Your task to perform on an android device: Go to privacy settings Image 0: 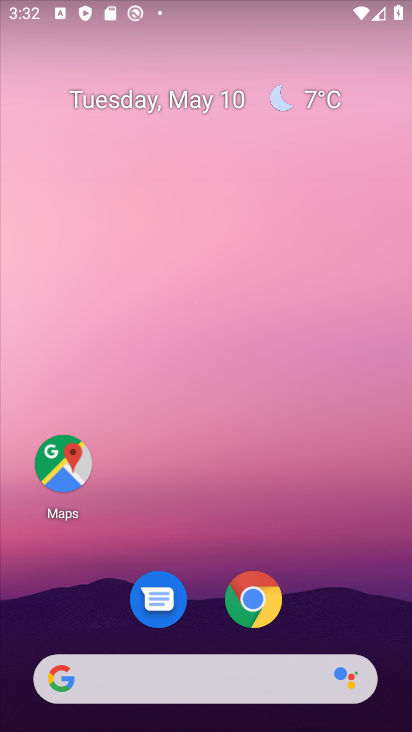
Step 0: drag from (233, 688) to (303, 206)
Your task to perform on an android device: Go to privacy settings Image 1: 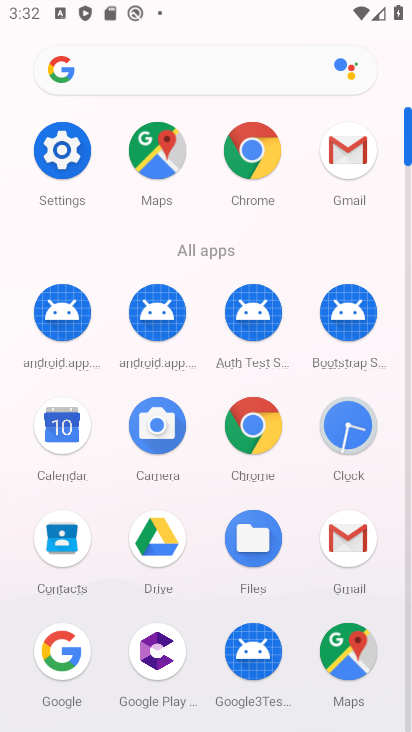
Step 1: click (58, 166)
Your task to perform on an android device: Go to privacy settings Image 2: 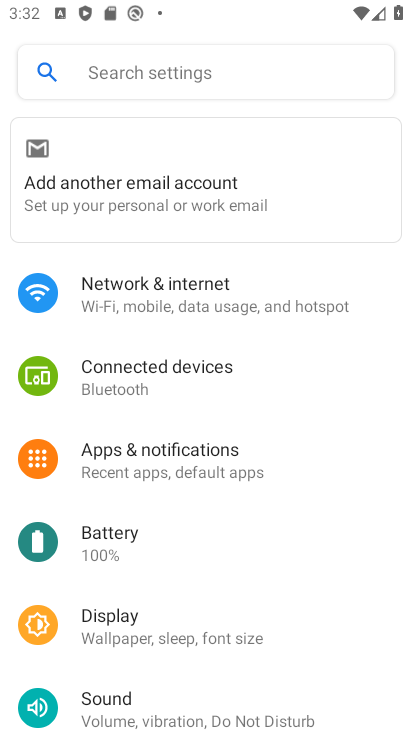
Step 2: drag from (249, 589) to (304, 220)
Your task to perform on an android device: Go to privacy settings Image 3: 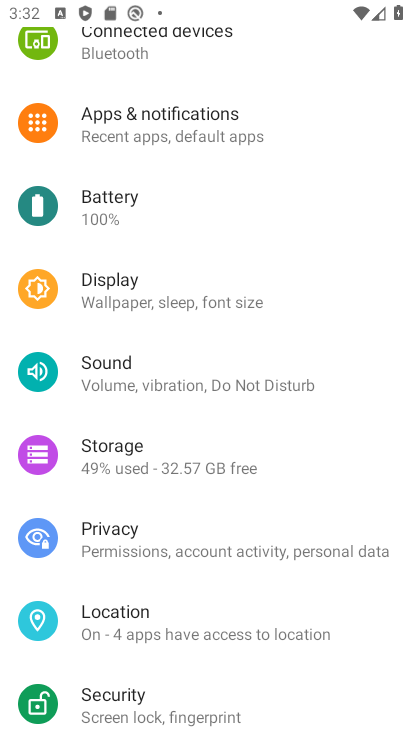
Step 3: click (192, 547)
Your task to perform on an android device: Go to privacy settings Image 4: 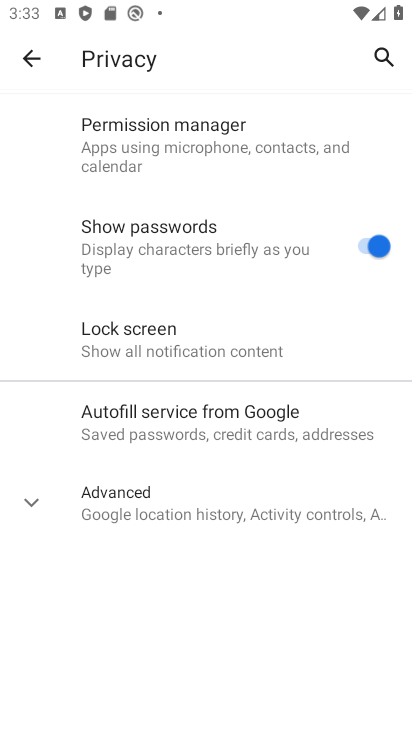
Step 4: task complete